Your task to perform on an android device: change the clock display to analog Image 0: 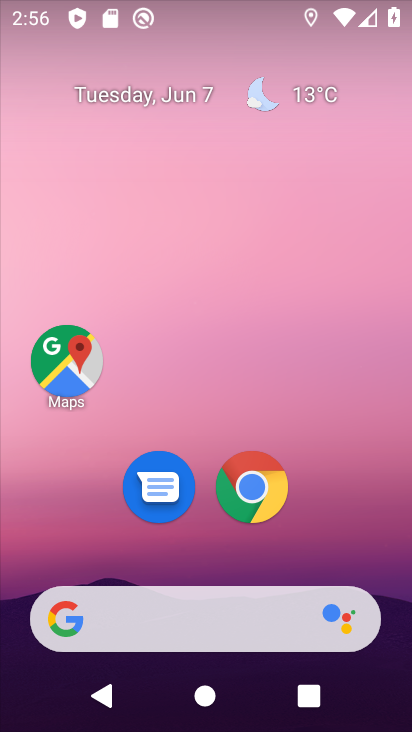
Step 0: click (123, 34)
Your task to perform on an android device: change the clock display to analog Image 1: 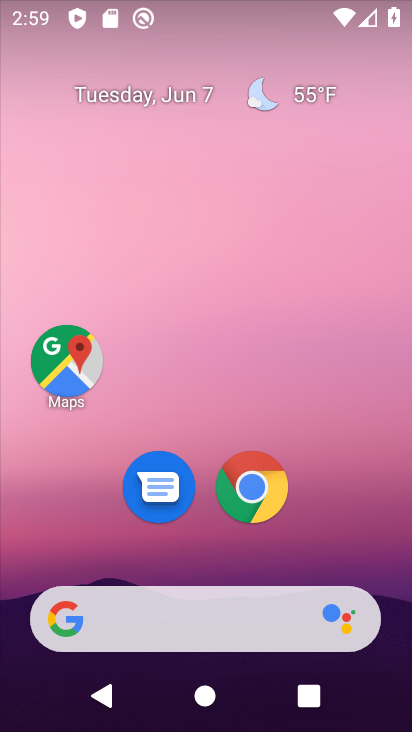
Step 1: drag from (233, 672) to (160, 220)
Your task to perform on an android device: change the clock display to analog Image 2: 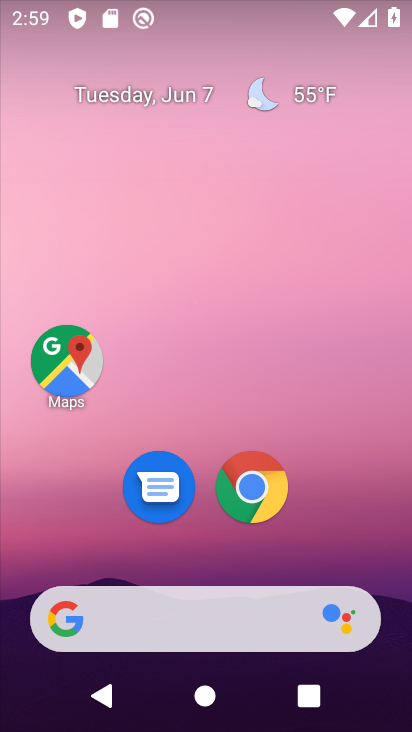
Step 2: drag from (232, 559) to (178, 276)
Your task to perform on an android device: change the clock display to analog Image 3: 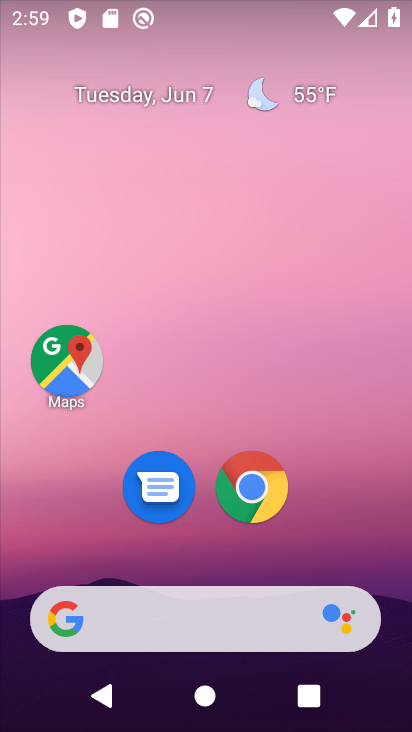
Step 3: drag from (251, 608) to (183, 242)
Your task to perform on an android device: change the clock display to analog Image 4: 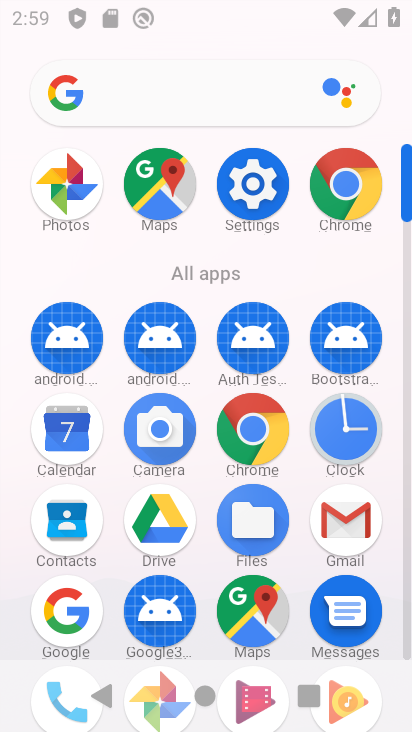
Step 4: drag from (242, 725) to (203, 312)
Your task to perform on an android device: change the clock display to analog Image 5: 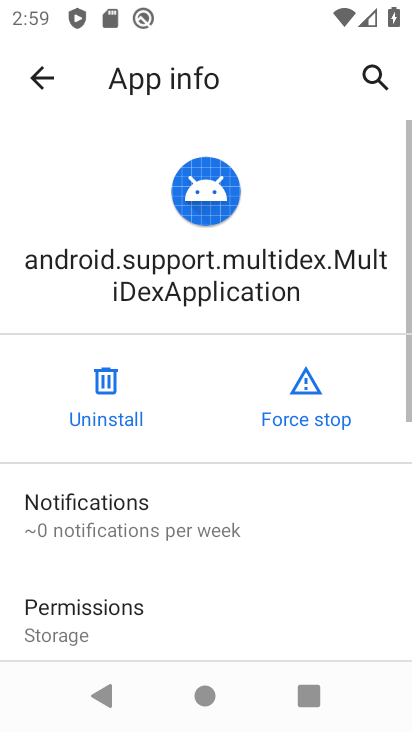
Step 5: click (35, 79)
Your task to perform on an android device: change the clock display to analog Image 6: 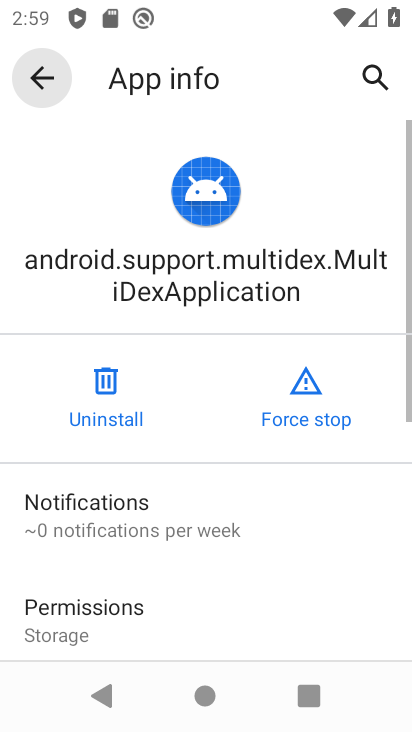
Step 6: click (34, 78)
Your task to perform on an android device: change the clock display to analog Image 7: 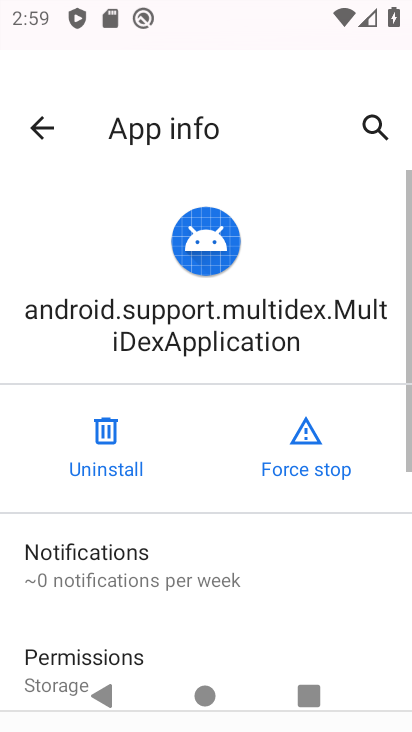
Step 7: click (33, 78)
Your task to perform on an android device: change the clock display to analog Image 8: 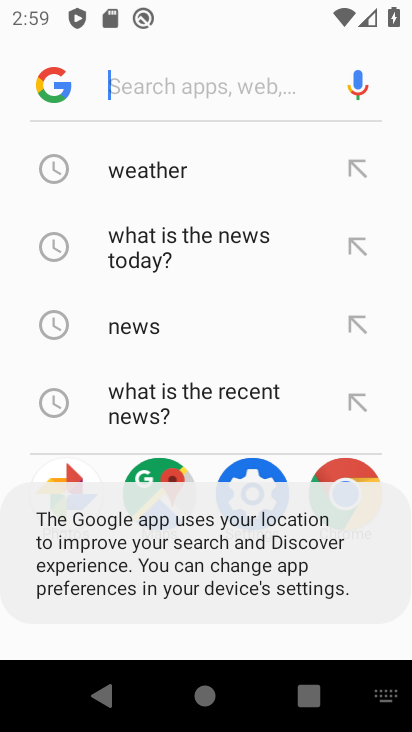
Step 8: press back button
Your task to perform on an android device: change the clock display to analog Image 9: 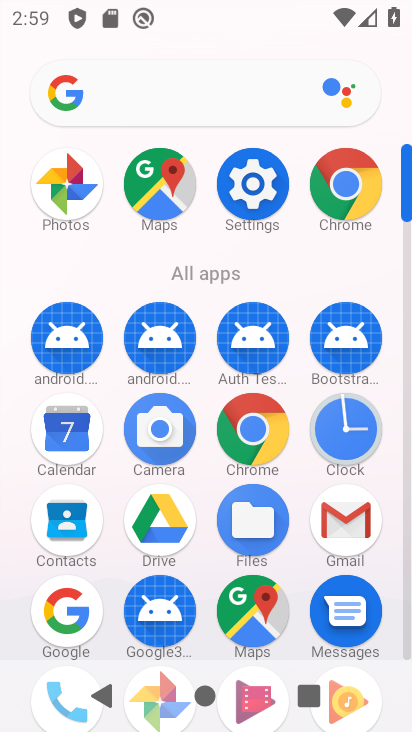
Step 9: click (350, 421)
Your task to perform on an android device: change the clock display to analog Image 10: 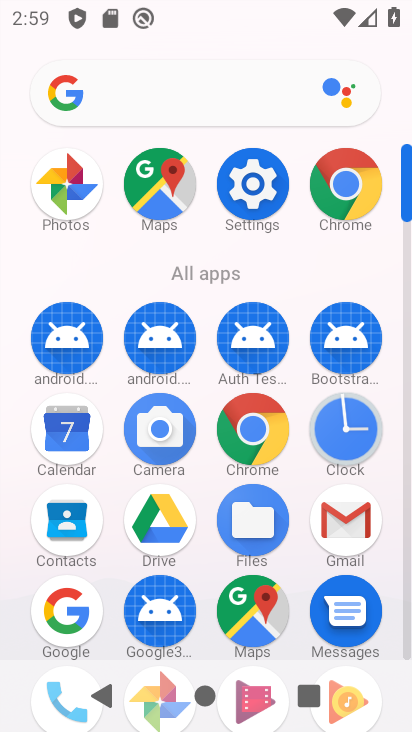
Step 10: click (350, 421)
Your task to perform on an android device: change the clock display to analog Image 11: 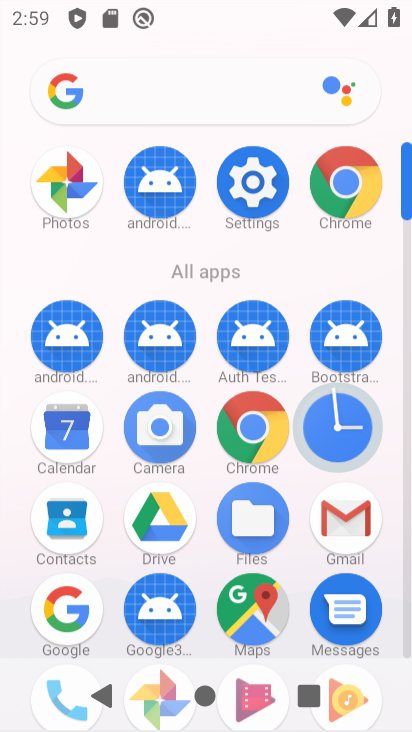
Step 11: click (353, 422)
Your task to perform on an android device: change the clock display to analog Image 12: 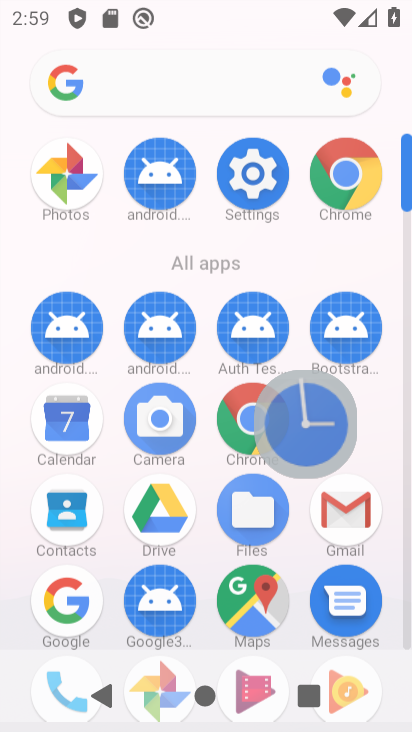
Step 12: click (353, 422)
Your task to perform on an android device: change the clock display to analog Image 13: 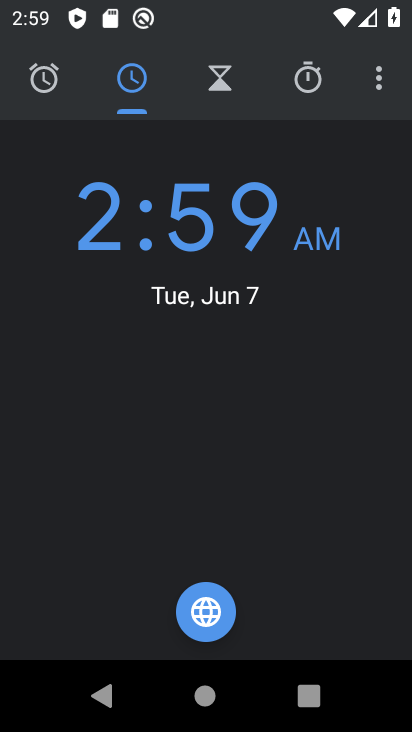
Step 13: click (355, 423)
Your task to perform on an android device: change the clock display to analog Image 14: 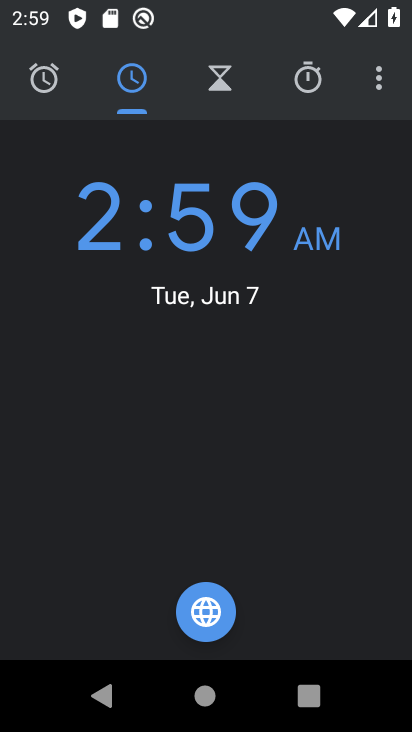
Step 14: click (376, 94)
Your task to perform on an android device: change the clock display to analog Image 15: 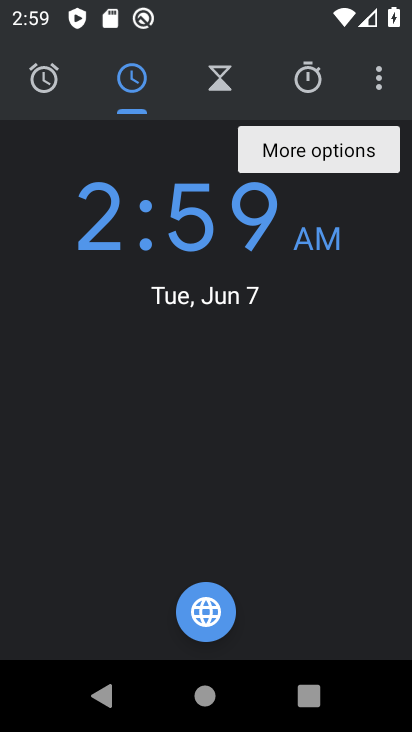
Step 15: click (382, 85)
Your task to perform on an android device: change the clock display to analog Image 16: 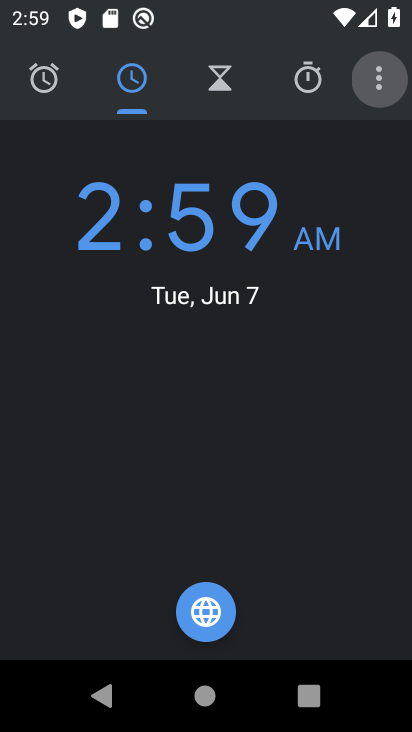
Step 16: click (379, 80)
Your task to perform on an android device: change the clock display to analog Image 17: 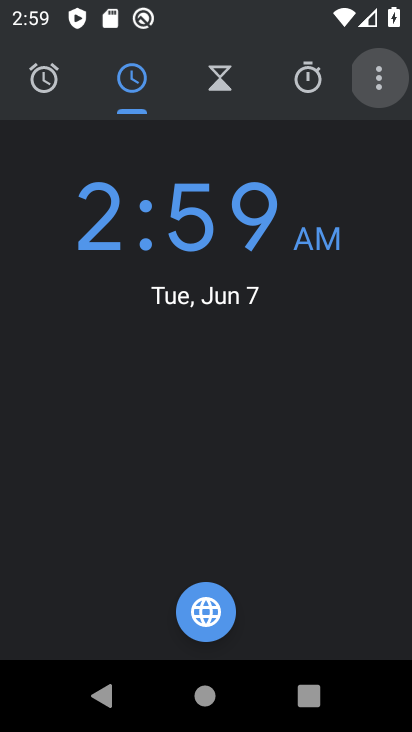
Step 17: click (376, 84)
Your task to perform on an android device: change the clock display to analog Image 18: 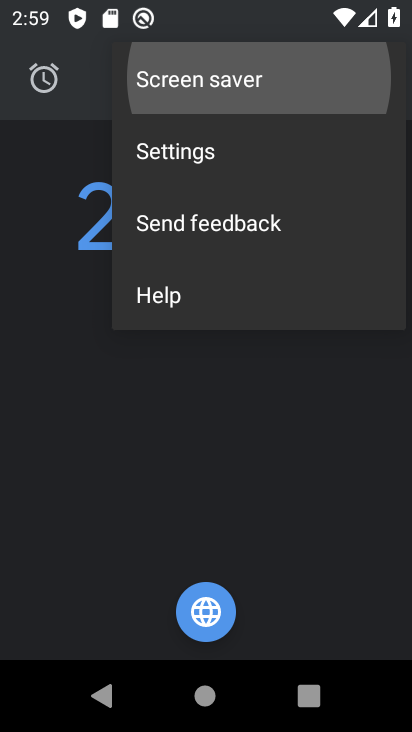
Step 18: click (378, 86)
Your task to perform on an android device: change the clock display to analog Image 19: 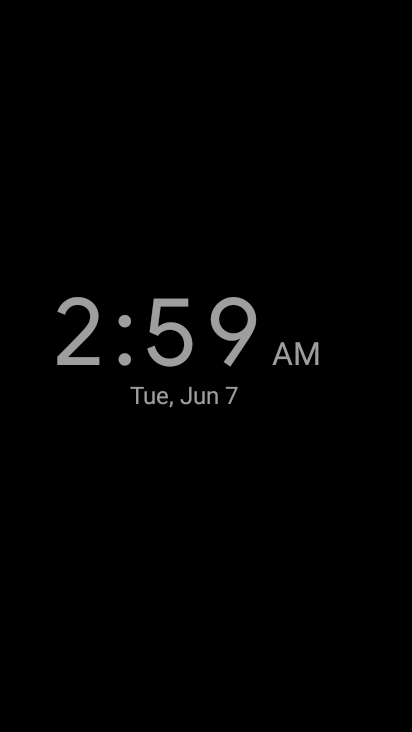
Step 19: press back button
Your task to perform on an android device: change the clock display to analog Image 20: 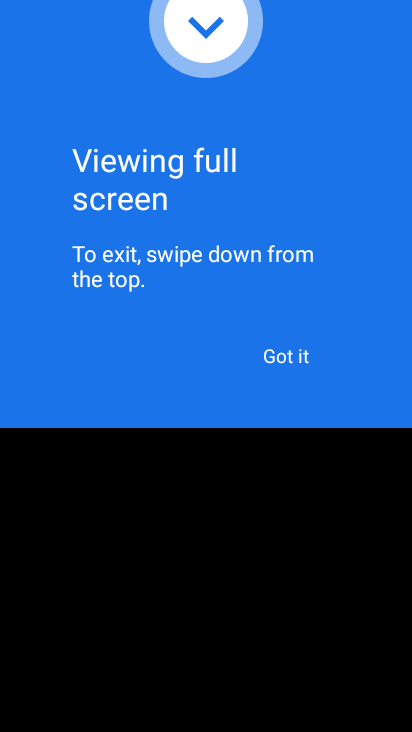
Step 20: click (283, 368)
Your task to perform on an android device: change the clock display to analog Image 21: 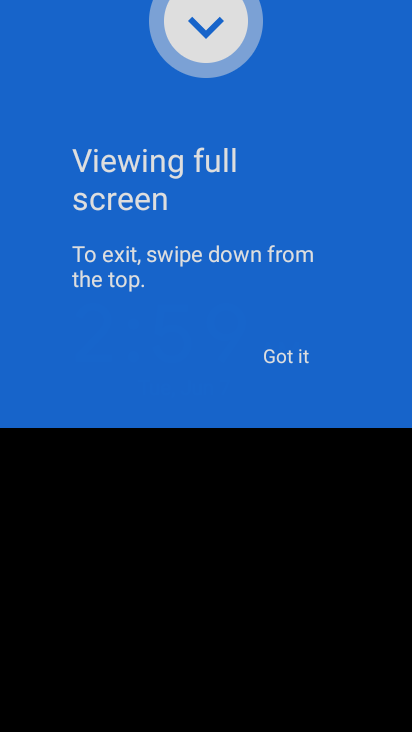
Step 21: click (280, 364)
Your task to perform on an android device: change the clock display to analog Image 22: 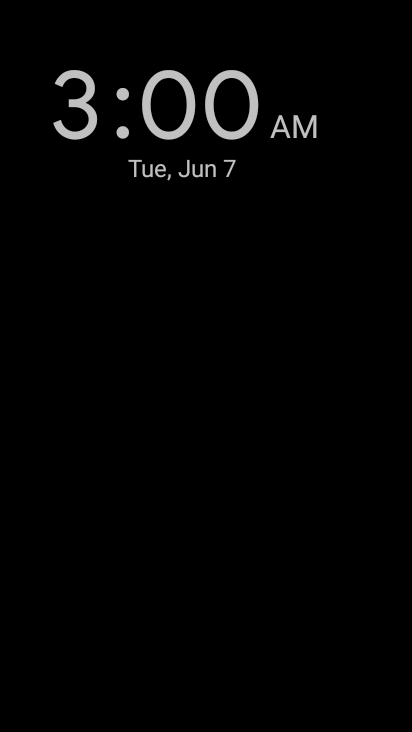
Step 22: click (280, 364)
Your task to perform on an android device: change the clock display to analog Image 23: 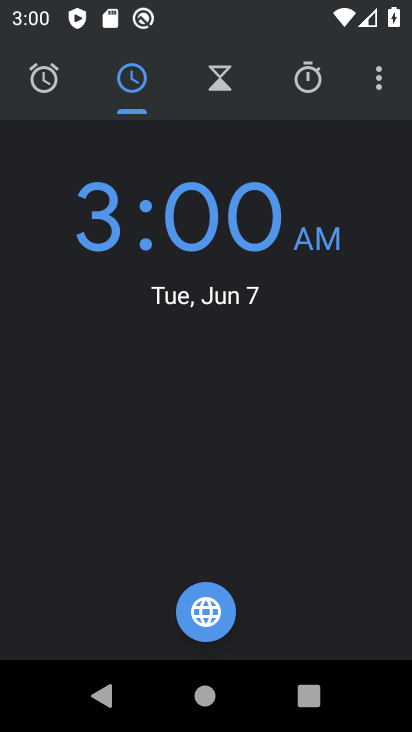
Step 23: click (374, 89)
Your task to perform on an android device: change the clock display to analog Image 24: 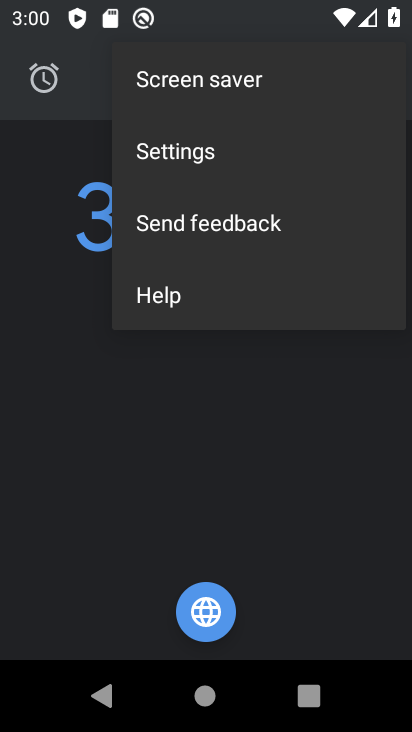
Step 24: click (175, 153)
Your task to perform on an android device: change the clock display to analog Image 25: 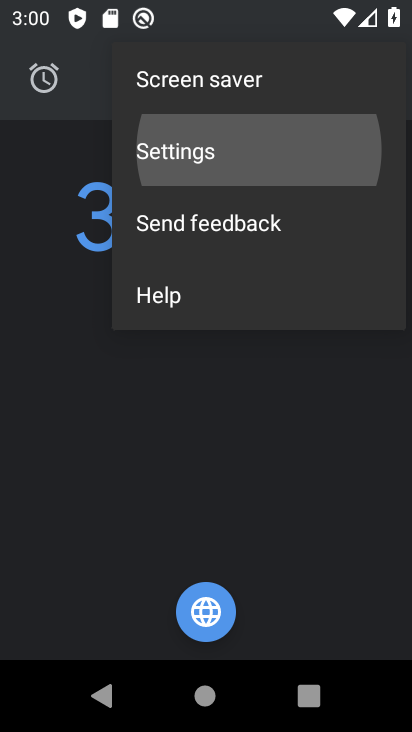
Step 25: click (174, 153)
Your task to perform on an android device: change the clock display to analog Image 26: 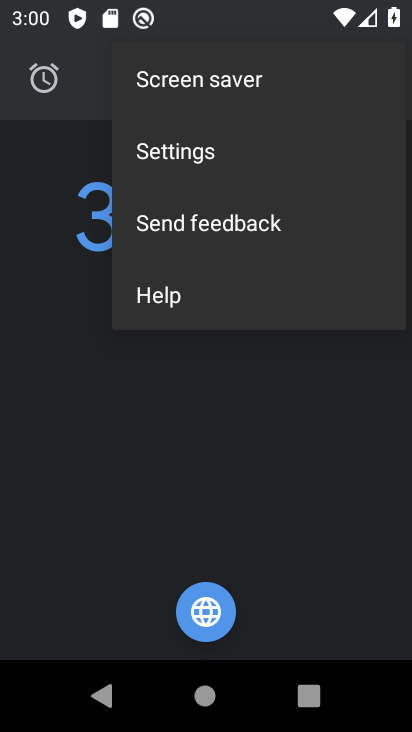
Step 26: click (170, 152)
Your task to perform on an android device: change the clock display to analog Image 27: 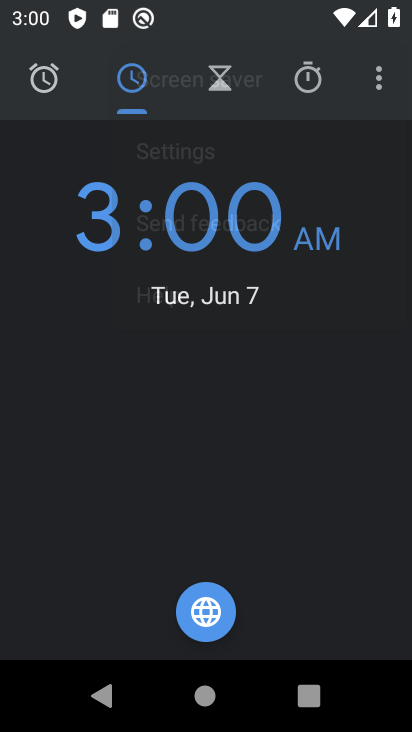
Step 27: click (165, 151)
Your task to perform on an android device: change the clock display to analog Image 28: 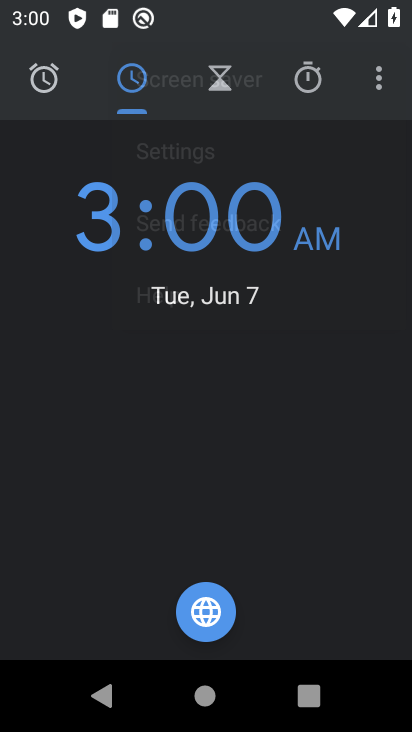
Step 28: click (154, 148)
Your task to perform on an android device: change the clock display to analog Image 29: 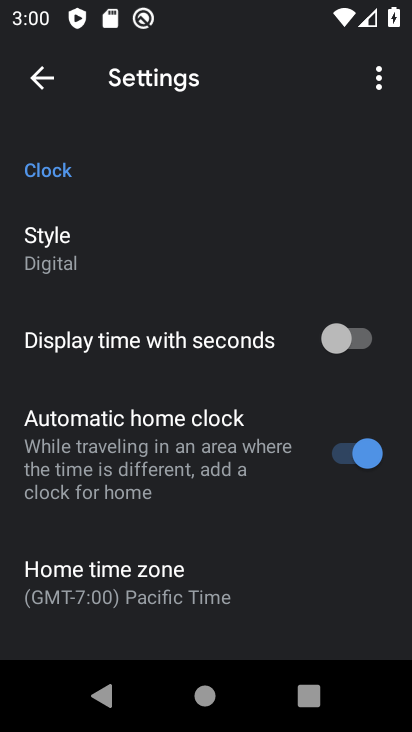
Step 29: click (78, 262)
Your task to perform on an android device: change the clock display to analog Image 30: 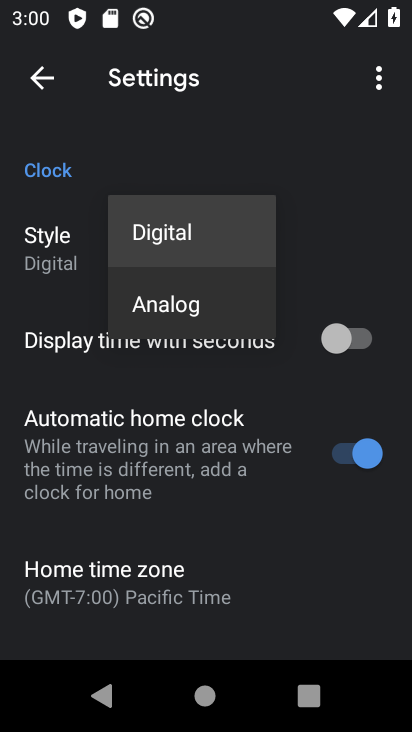
Step 30: click (153, 301)
Your task to perform on an android device: change the clock display to analog Image 31: 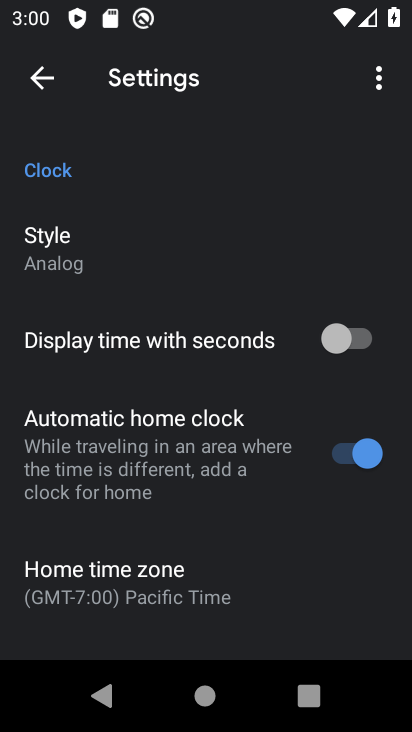
Step 31: task complete